Your task to perform on an android device: manage bookmarks in the chrome app Image 0: 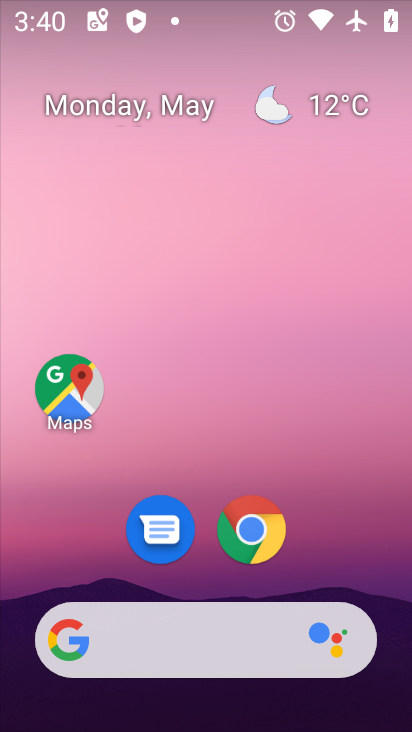
Step 0: click (238, 525)
Your task to perform on an android device: manage bookmarks in the chrome app Image 1: 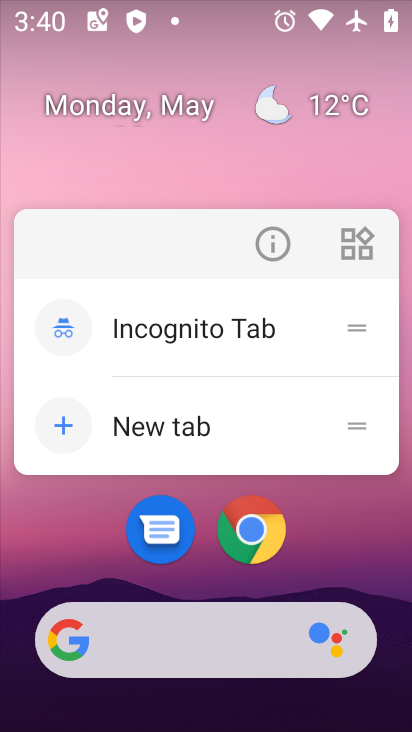
Step 1: click (241, 525)
Your task to perform on an android device: manage bookmarks in the chrome app Image 2: 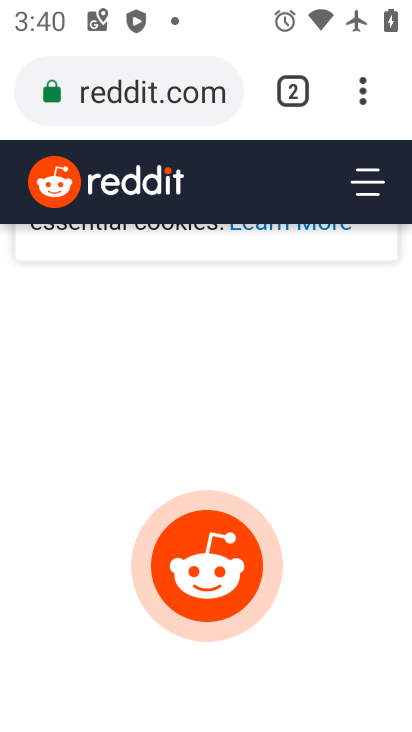
Step 2: click (360, 98)
Your task to perform on an android device: manage bookmarks in the chrome app Image 3: 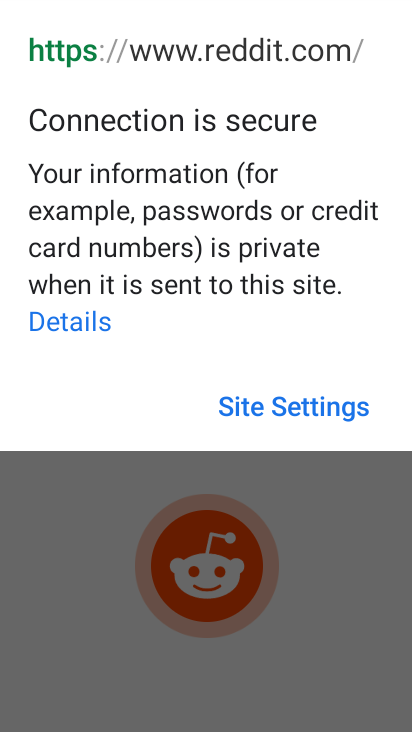
Step 3: click (217, 502)
Your task to perform on an android device: manage bookmarks in the chrome app Image 4: 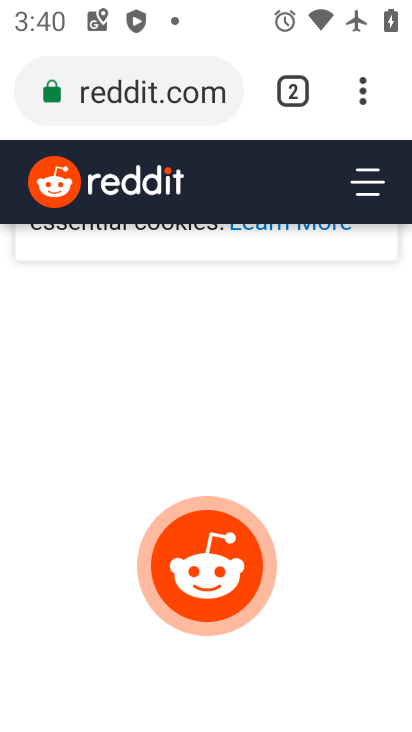
Step 4: click (365, 90)
Your task to perform on an android device: manage bookmarks in the chrome app Image 5: 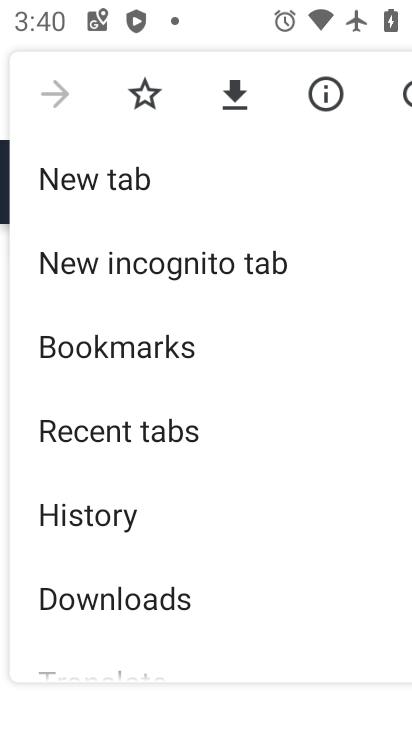
Step 5: click (96, 366)
Your task to perform on an android device: manage bookmarks in the chrome app Image 6: 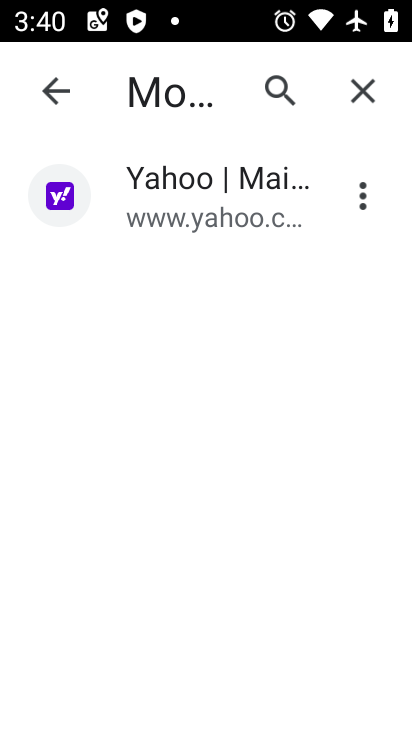
Step 6: click (364, 207)
Your task to perform on an android device: manage bookmarks in the chrome app Image 7: 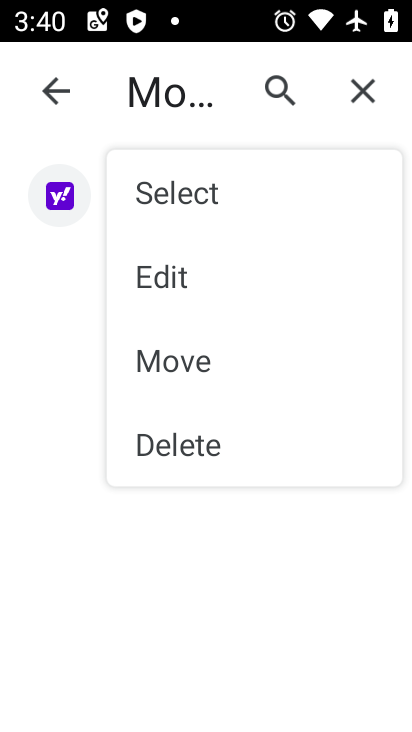
Step 7: click (206, 451)
Your task to perform on an android device: manage bookmarks in the chrome app Image 8: 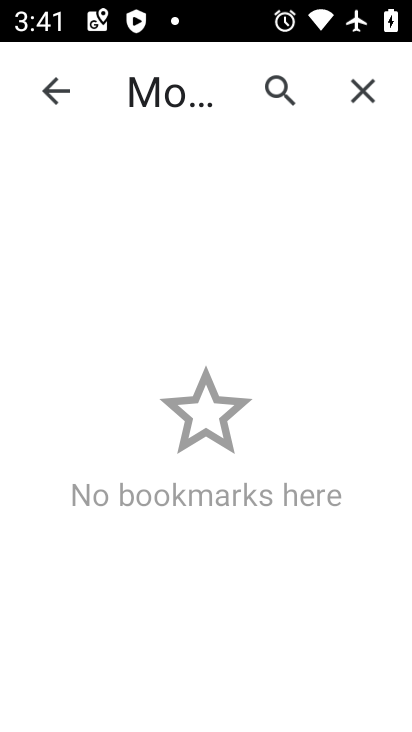
Step 8: task complete